Your task to perform on an android device: What is the news today? Image 0: 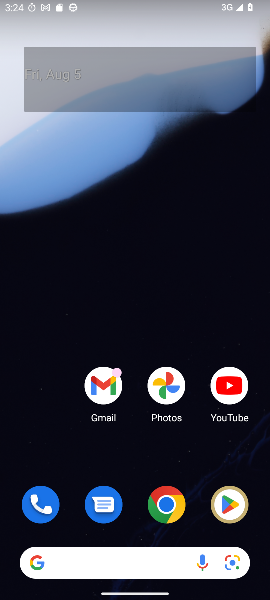
Step 0: click (75, 553)
Your task to perform on an android device: What is the news today? Image 1: 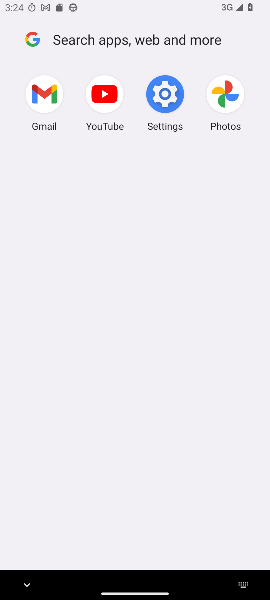
Step 1: drag from (179, 125) to (155, 516)
Your task to perform on an android device: What is the news today? Image 2: 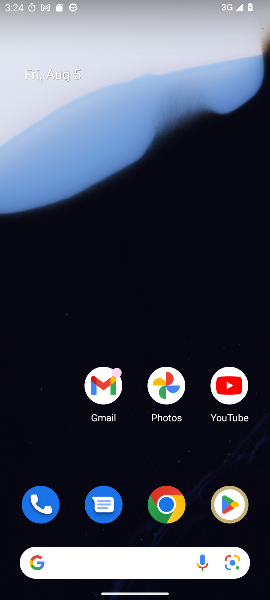
Step 2: drag from (187, 5) to (141, 486)
Your task to perform on an android device: What is the news today? Image 3: 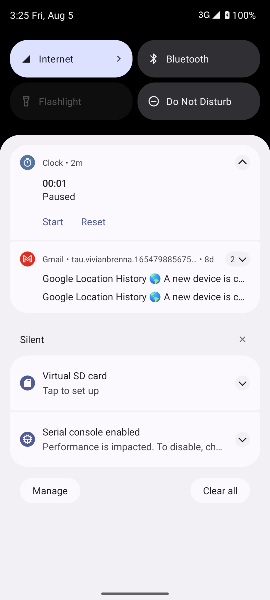
Step 3: press home button
Your task to perform on an android device: What is the news today? Image 4: 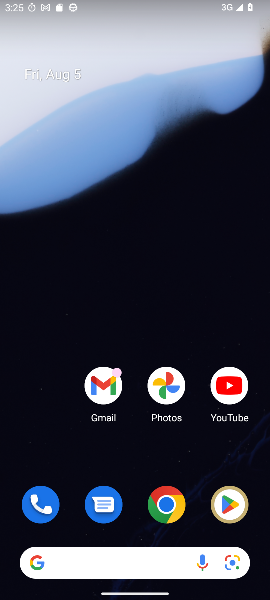
Step 4: click (81, 562)
Your task to perform on an android device: What is the news today? Image 5: 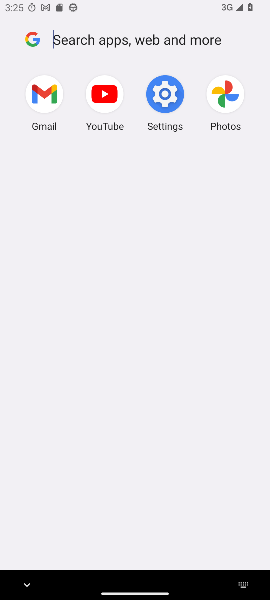
Step 5: type "What is the news today?"
Your task to perform on an android device: What is the news today? Image 6: 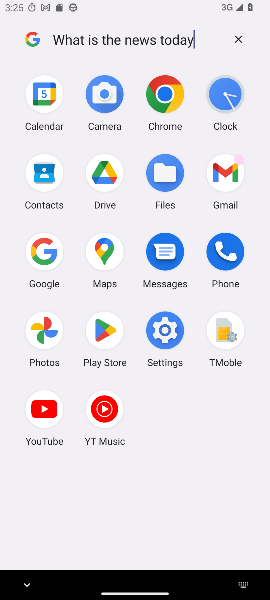
Step 6: type ""
Your task to perform on an android device: What is the news today? Image 7: 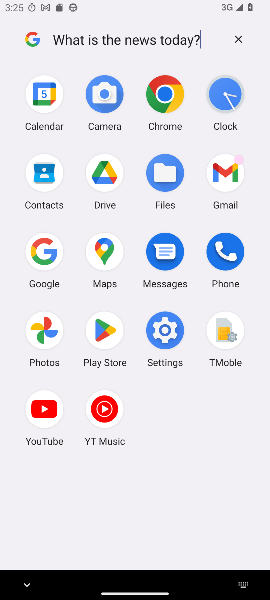
Step 7: type ""
Your task to perform on an android device: What is the news today? Image 8: 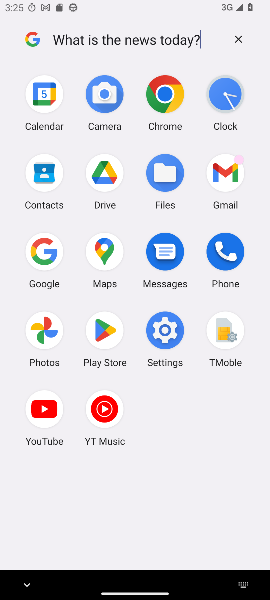
Step 8: task complete